Your task to perform on an android device: Open Google Chrome Image 0: 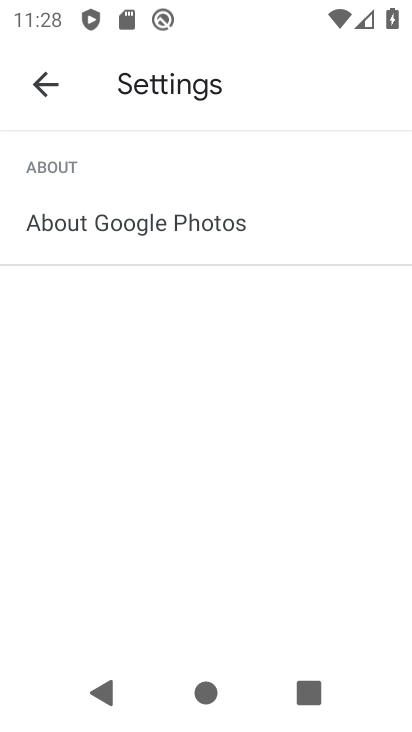
Step 0: press home button
Your task to perform on an android device: Open Google Chrome Image 1: 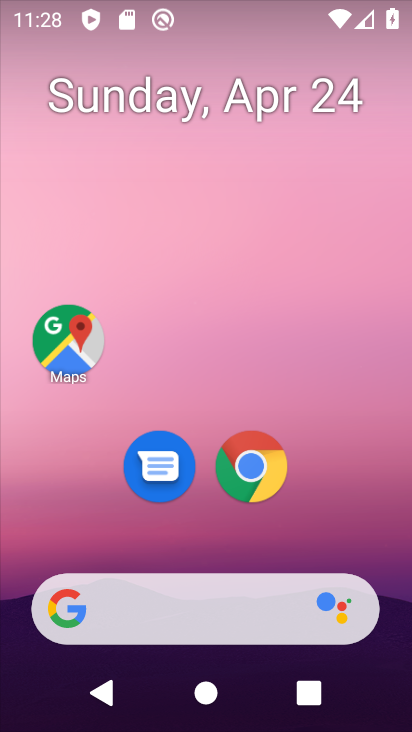
Step 1: drag from (359, 440) to (359, 121)
Your task to perform on an android device: Open Google Chrome Image 2: 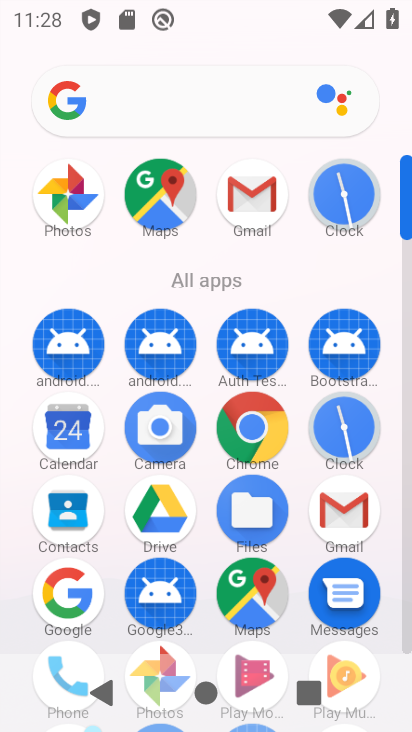
Step 2: click (245, 426)
Your task to perform on an android device: Open Google Chrome Image 3: 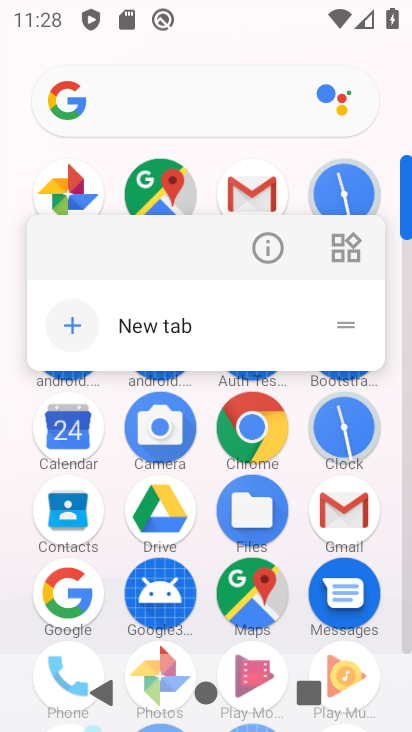
Step 3: click (269, 451)
Your task to perform on an android device: Open Google Chrome Image 4: 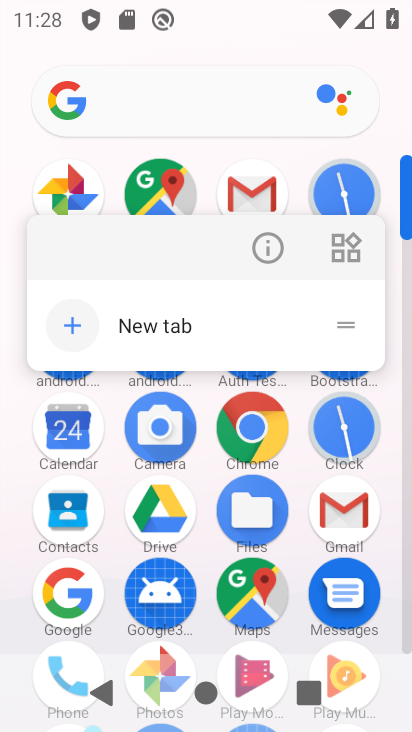
Step 4: click (269, 451)
Your task to perform on an android device: Open Google Chrome Image 5: 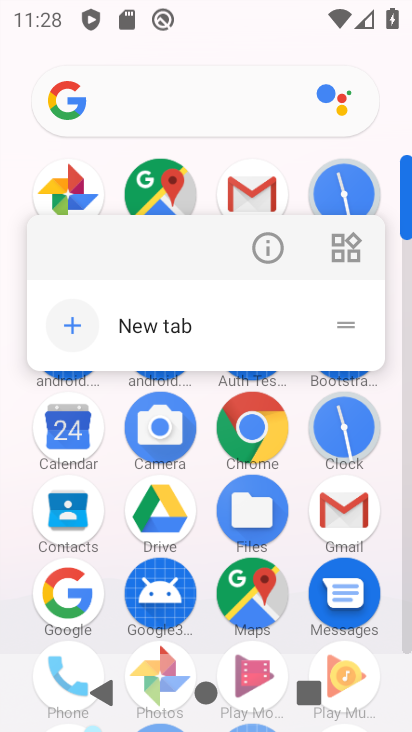
Step 5: click (269, 451)
Your task to perform on an android device: Open Google Chrome Image 6: 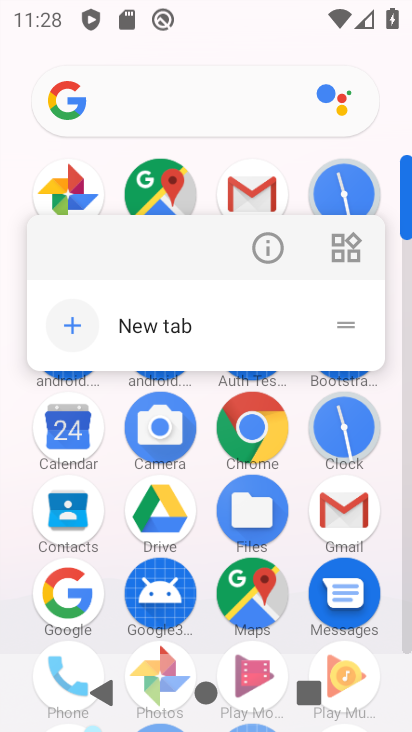
Step 6: click (272, 448)
Your task to perform on an android device: Open Google Chrome Image 7: 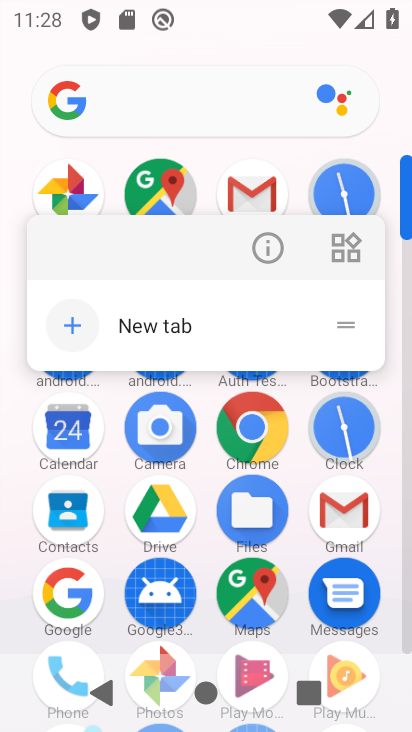
Step 7: click (275, 446)
Your task to perform on an android device: Open Google Chrome Image 8: 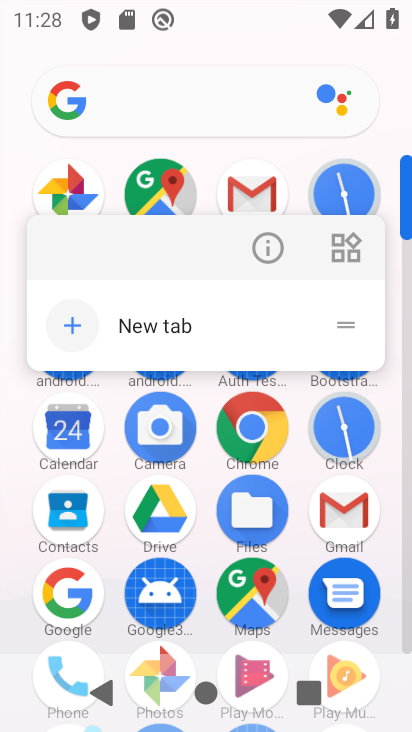
Step 8: drag from (302, 554) to (297, 397)
Your task to perform on an android device: Open Google Chrome Image 9: 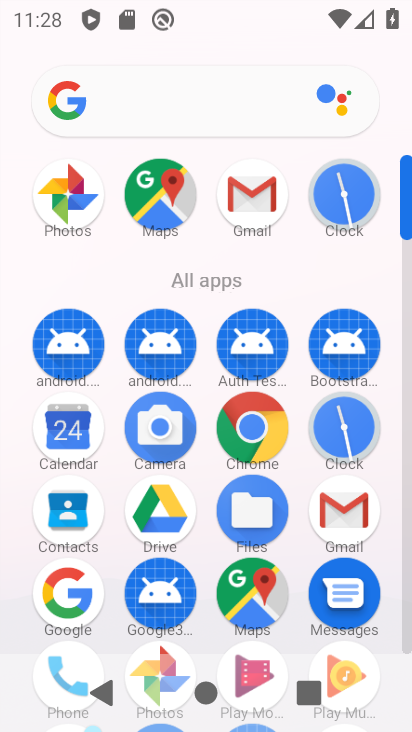
Step 9: click (258, 426)
Your task to perform on an android device: Open Google Chrome Image 10: 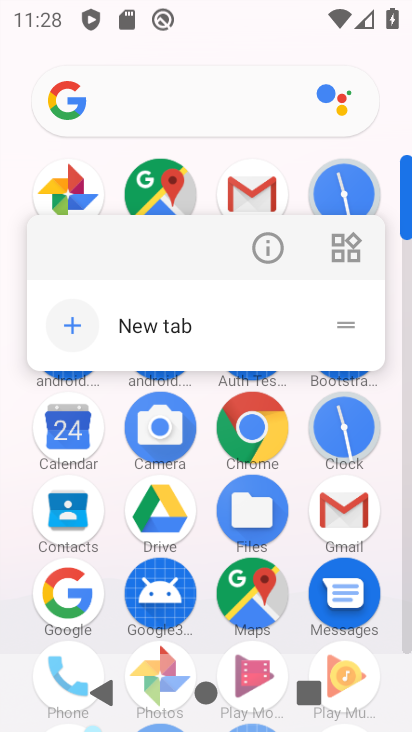
Step 10: click (282, 436)
Your task to perform on an android device: Open Google Chrome Image 11: 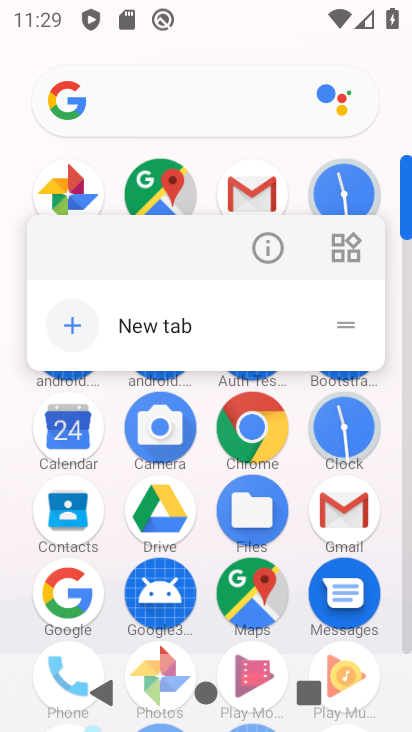
Step 11: click (270, 441)
Your task to perform on an android device: Open Google Chrome Image 12: 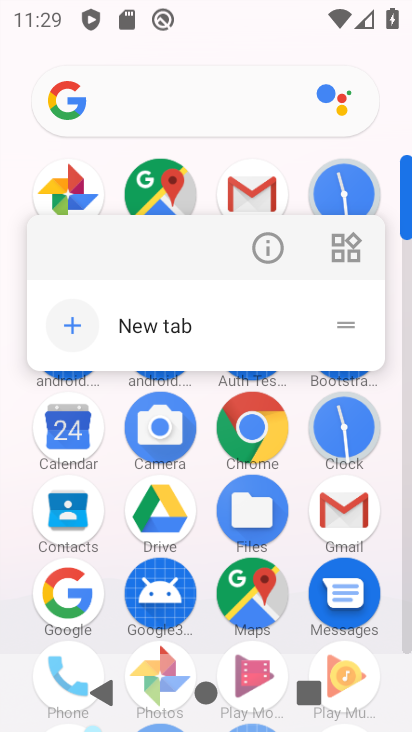
Step 12: click (268, 440)
Your task to perform on an android device: Open Google Chrome Image 13: 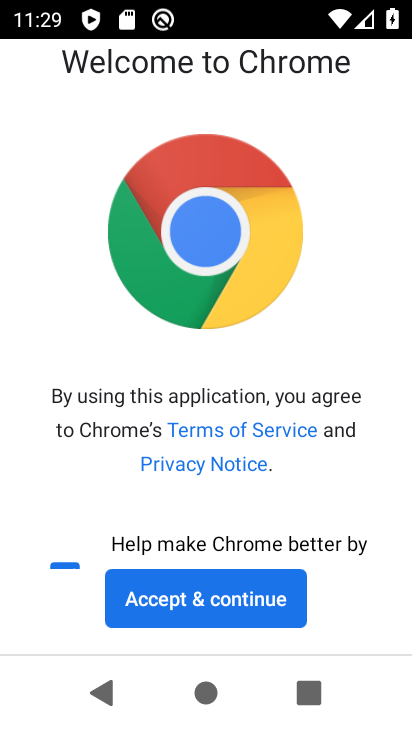
Step 13: click (219, 600)
Your task to perform on an android device: Open Google Chrome Image 14: 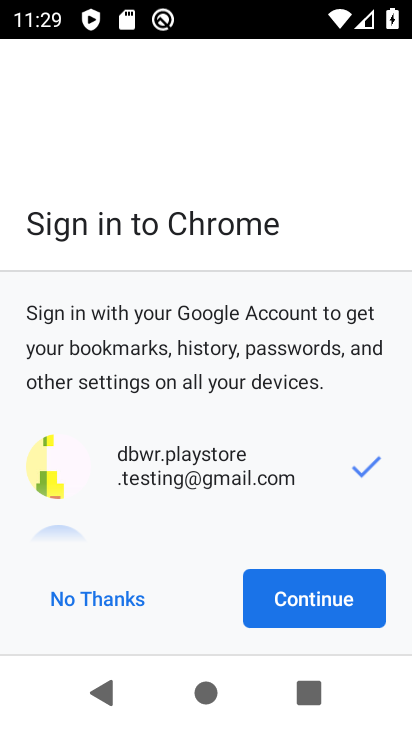
Step 14: click (294, 607)
Your task to perform on an android device: Open Google Chrome Image 15: 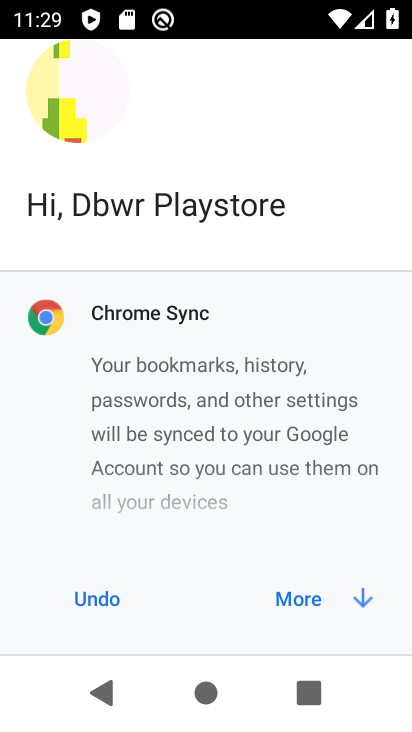
Step 15: click (290, 601)
Your task to perform on an android device: Open Google Chrome Image 16: 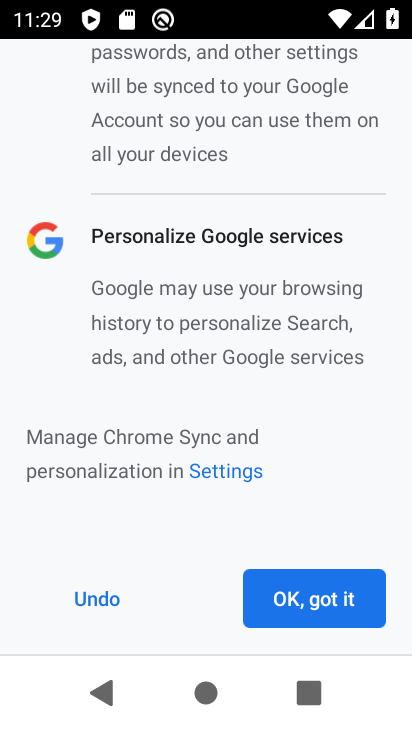
Step 16: click (288, 601)
Your task to perform on an android device: Open Google Chrome Image 17: 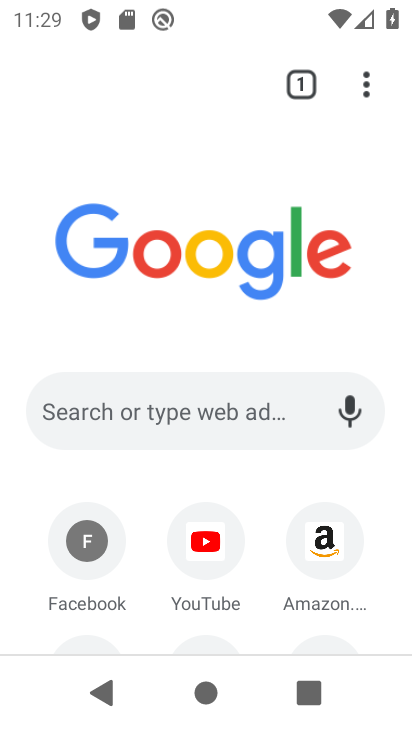
Step 17: task complete